Your task to perform on an android device: Open calendar and show me the fourth week of next month Image 0: 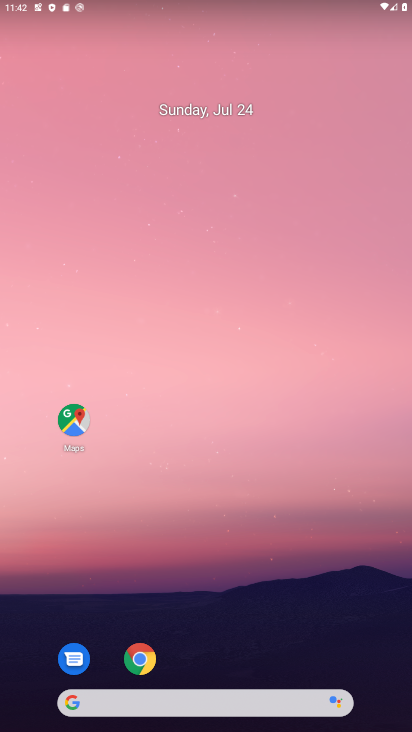
Step 0: click (150, 665)
Your task to perform on an android device: Open calendar and show me the fourth week of next month Image 1: 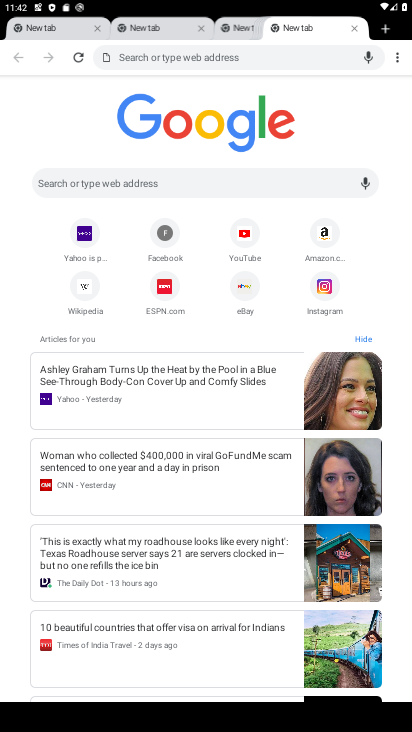
Step 1: press home button
Your task to perform on an android device: Open calendar and show me the fourth week of next month Image 2: 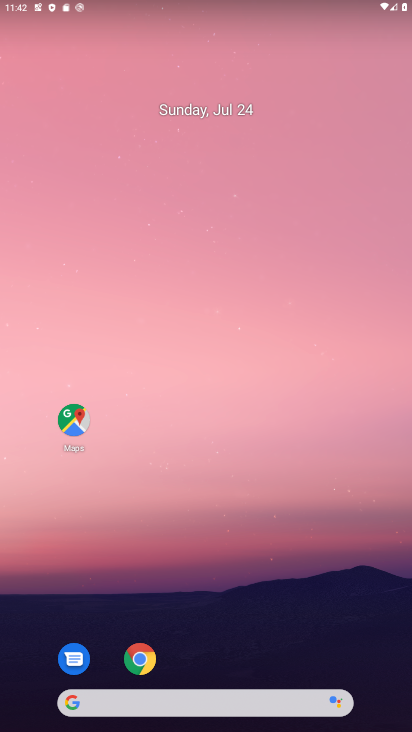
Step 2: drag from (44, 694) to (379, 45)
Your task to perform on an android device: Open calendar and show me the fourth week of next month Image 3: 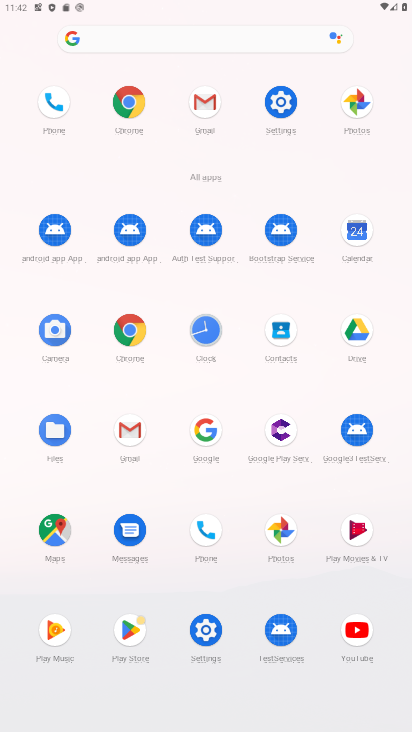
Step 3: click (366, 223)
Your task to perform on an android device: Open calendar and show me the fourth week of next month Image 4: 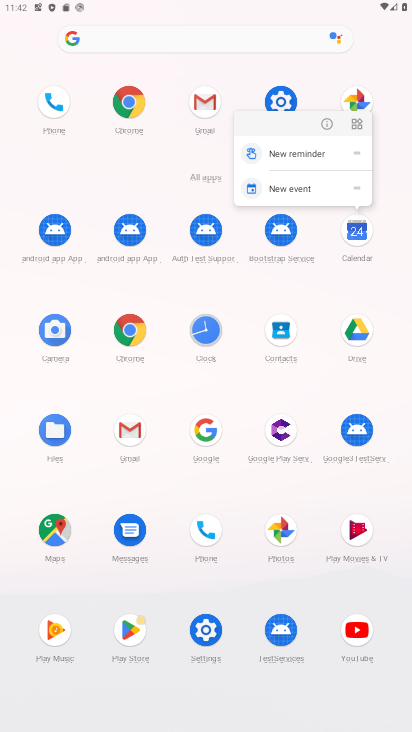
Step 4: click (342, 245)
Your task to perform on an android device: Open calendar and show me the fourth week of next month Image 5: 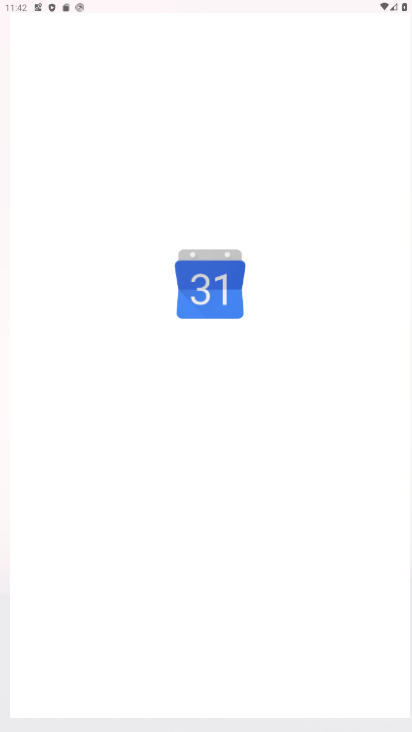
Step 5: click (361, 236)
Your task to perform on an android device: Open calendar and show me the fourth week of next month Image 6: 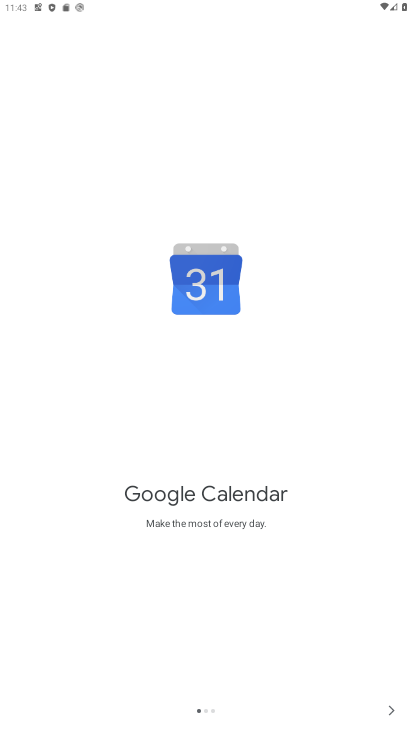
Step 6: click (394, 705)
Your task to perform on an android device: Open calendar and show me the fourth week of next month Image 7: 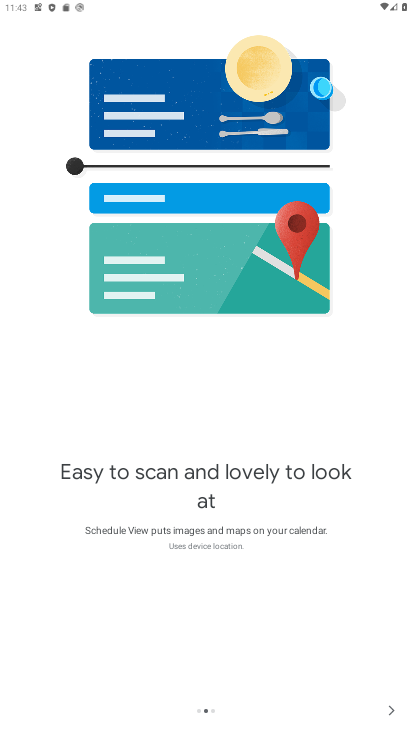
Step 7: click (395, 717)
Your task to perform on an android device: Open calendar and show me the fourth week of next month Image 8: 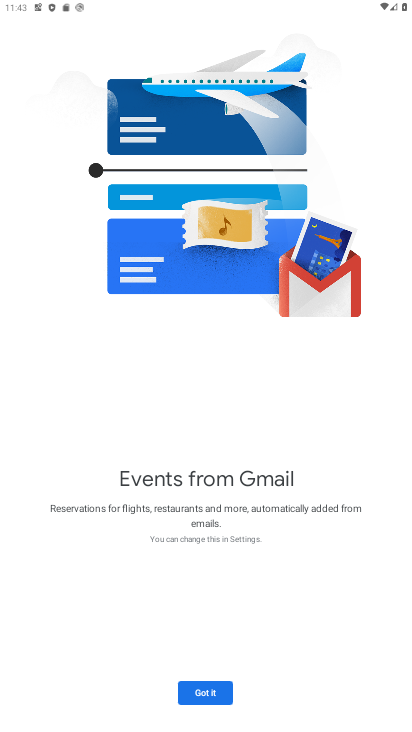
Step 8: click (202, 681)
Your task to perform on an android device: Open calendar and show me the fourth week of next month Image 9: 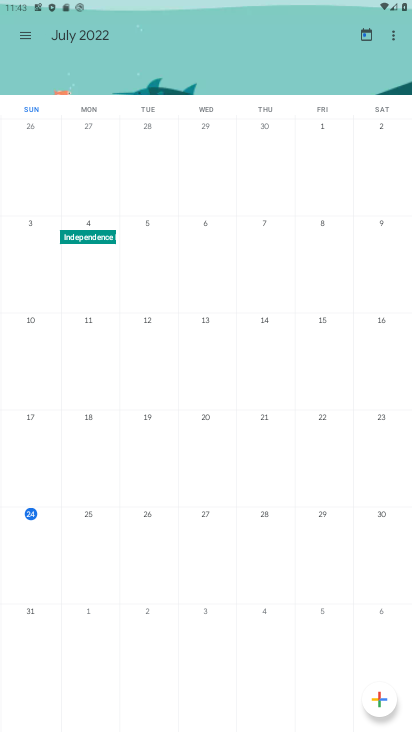
Step 9: drag from (389, 284) to (0, 336)
Your task to perform on an android device: Open calendar and show me the fourth week of next month Image 10: 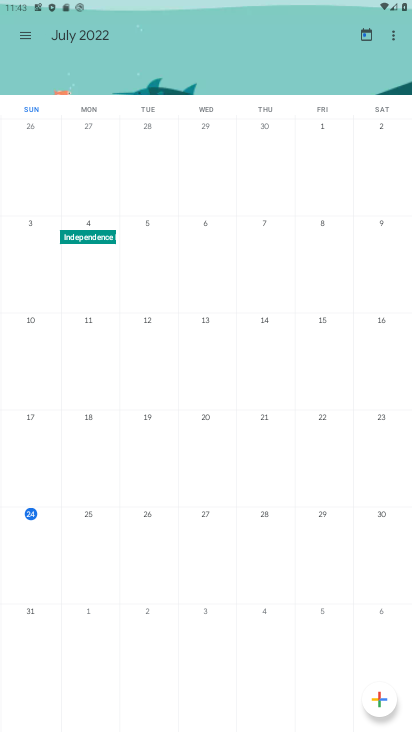
Step 10: drag from (377, 308) to (9, 327)
Your task to perform on an android device: Open calendar and show me the fourth week of next month Image 11: 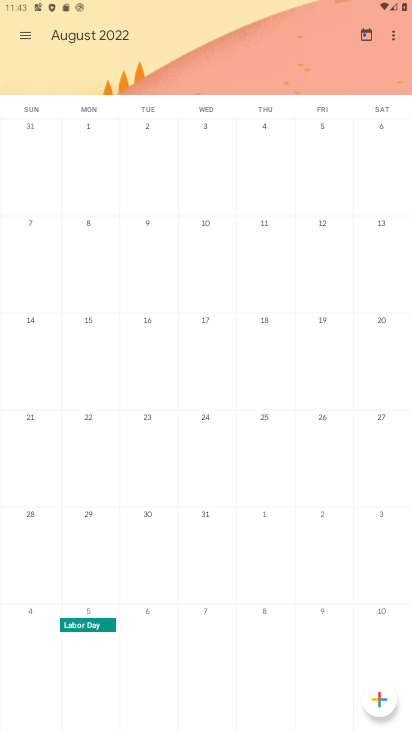
Step 11: click (91, 420)
Your task to perform on an android device: Open calendar and show me the fourth week of next month Image 12: 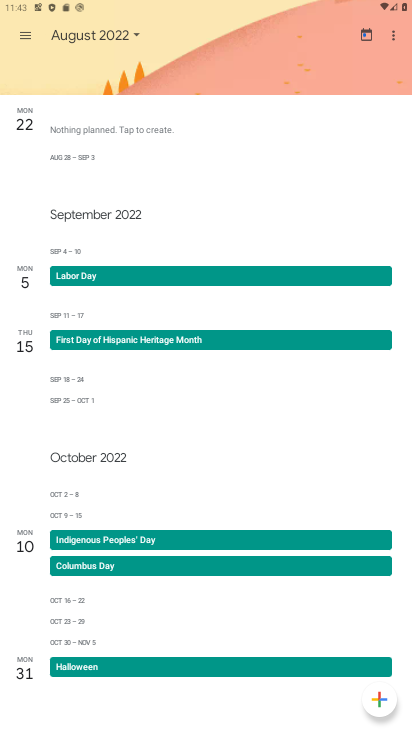
Step 12: task complete